Your task to perform on an android device: uninstall "Expedia: Hotels, Flights & Car" Image 0: 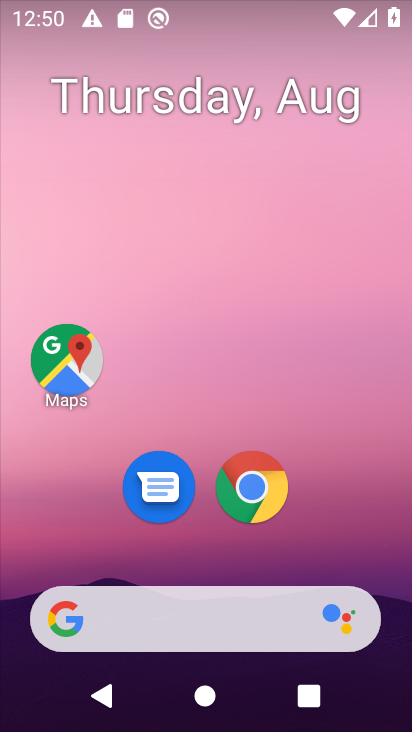
Step 0: press home button
Your task to perform on an android device: uninstall "Expedia: Hotels, Flights & Car" Image 1: 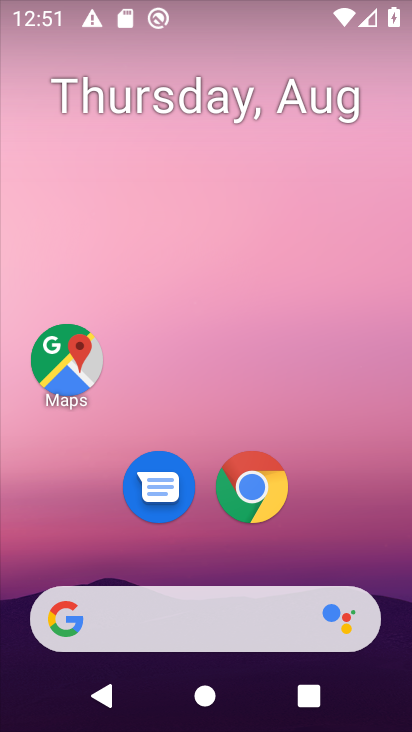
Step 1: drag from (221, 223) to (236, 0)
Your task to perform on an android device: uninstall "Expedia: Hotels, Flights & Car" Image 2: 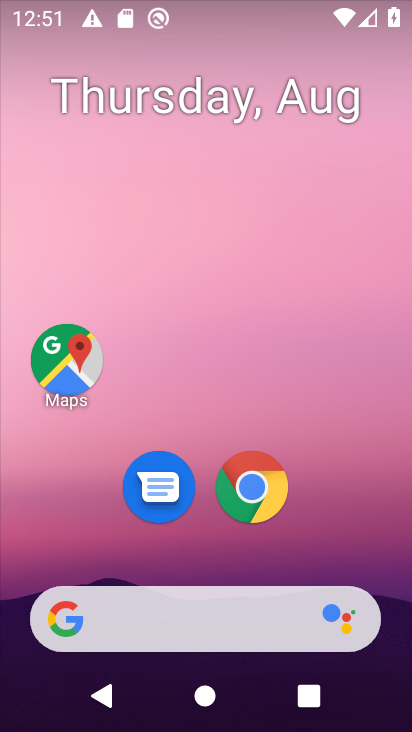
Step 2: drag from (200, 555) to (222, 59)
Your task to perform on an android device: uninstall "Expedia: Hotels, Flights & Car" Image 3: 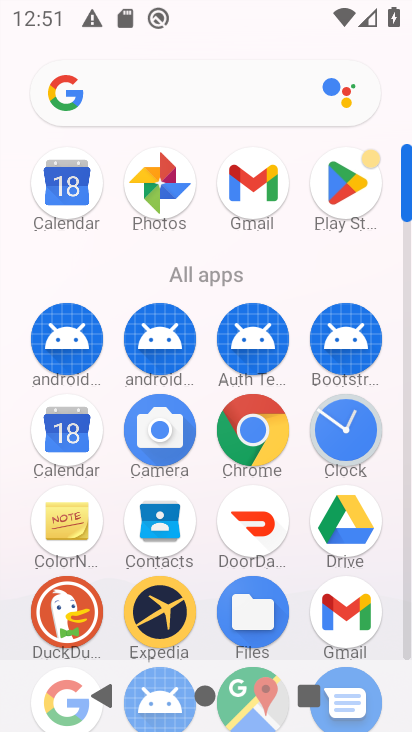
Step 3: click (343, 187)
Your task to perform on an android device: uninstall "Expedia: Hotels, Flights & Car" Image 4: 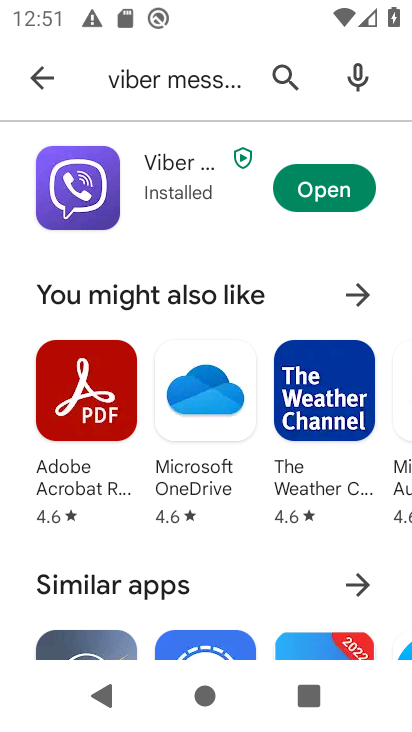
Step 4: click (283, 77)
Your task to perform on an android device: uninstall "Expedia: Hotels, Flights & Car" Image 5: 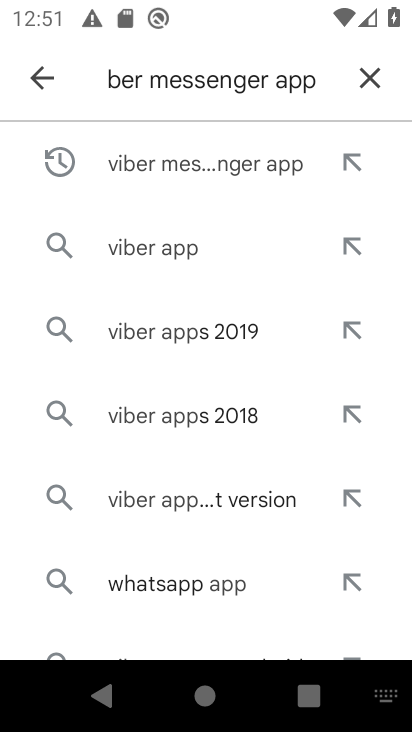
Step 5: click (368, 69)
Your task to perform on an android device: uninstall "Expedia: Hotels, Flights & Car" Image 6: 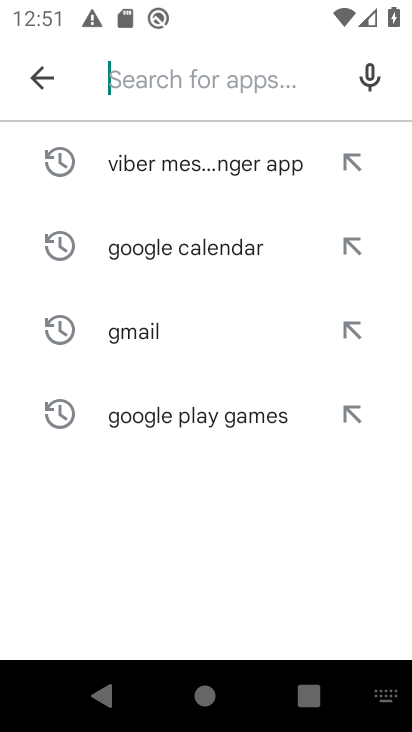
Step 6: type "Expedia: Hotels, Flights & Car"
Your task to perform on an android device: uninstall "Expedia: Hotels, Flights & Car" Image 7: 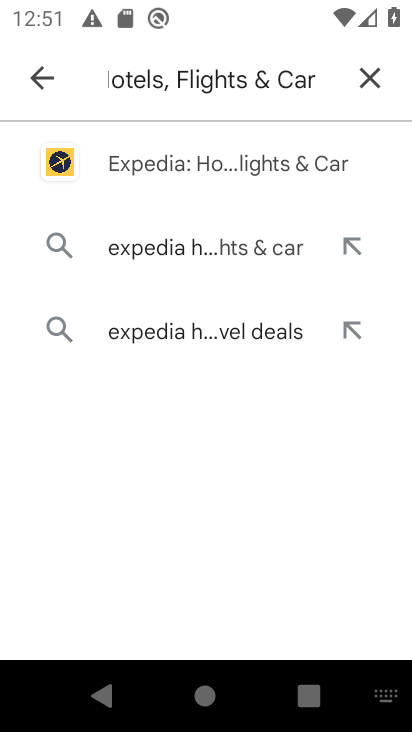
Step 7: click (207, 160)
Your task to perform on an android device: uninstall "Expedia: Hotels, Flights & Car" Image 8: 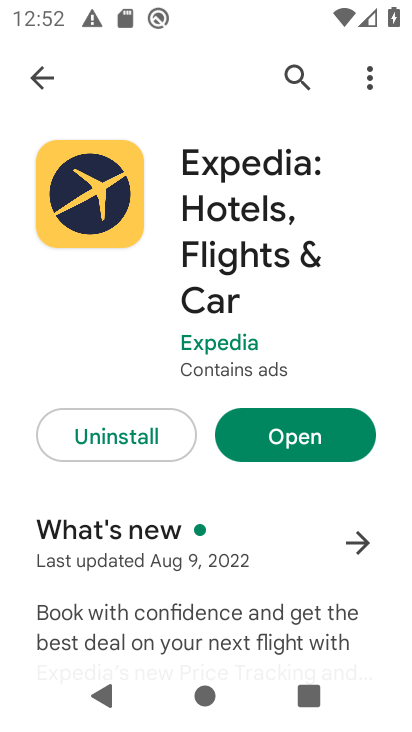
Step 8: click (116, 434)
Your task to perform on an android device: uninstall "Expedia: Hotels, Flights & Car" Image 9: 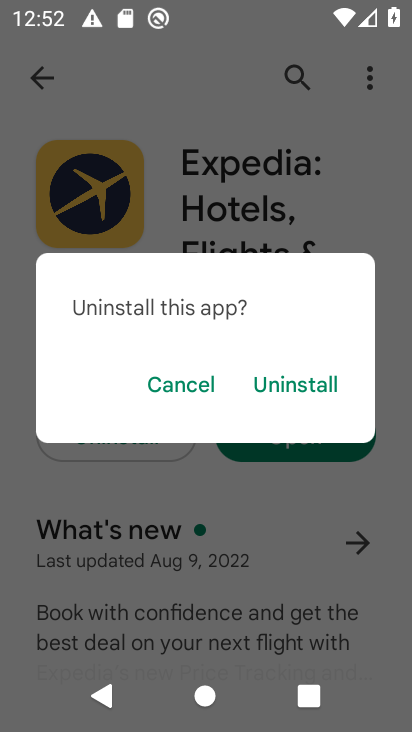
Step 9: click (296, 391)
Your task to perform on an android device: uninstall "Expedia: Hotels, Flights & Car" Image 10: 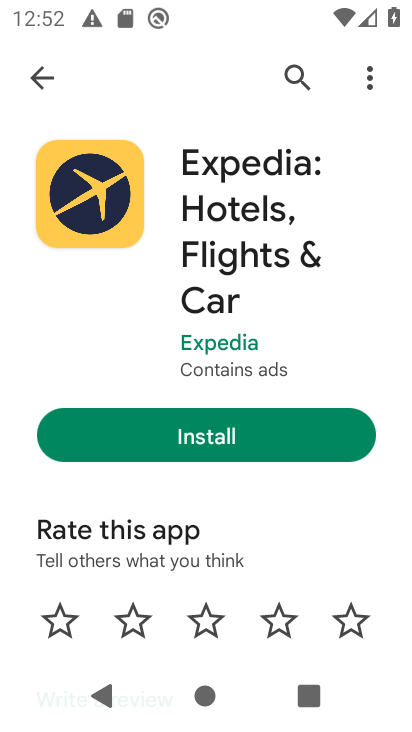
Step 10: task complete